Your task to perform on an android device: open app "Truecaller" (install if not already installed) Image 0: 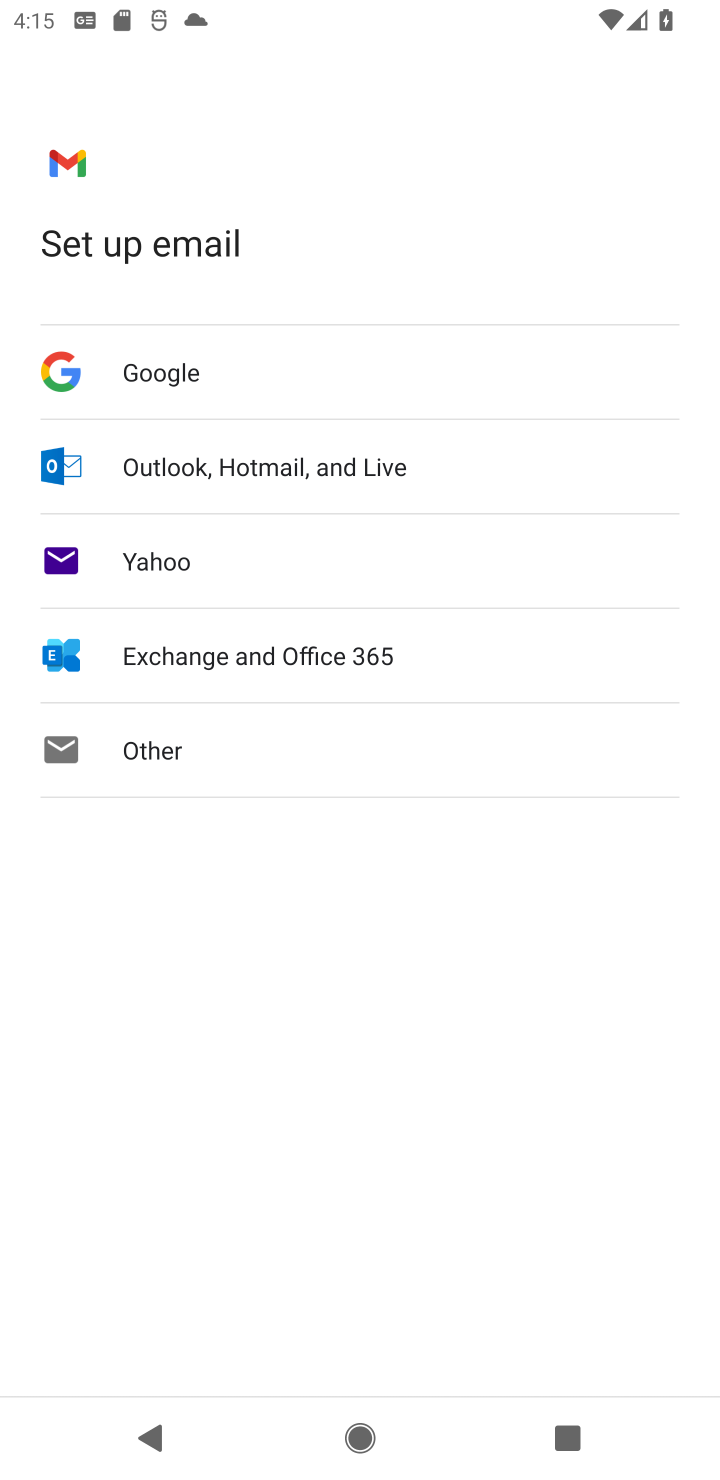
Step 0: press home button
Your task to perform on an android device: open app "Truecaller" (install if not already installed) Image 1: 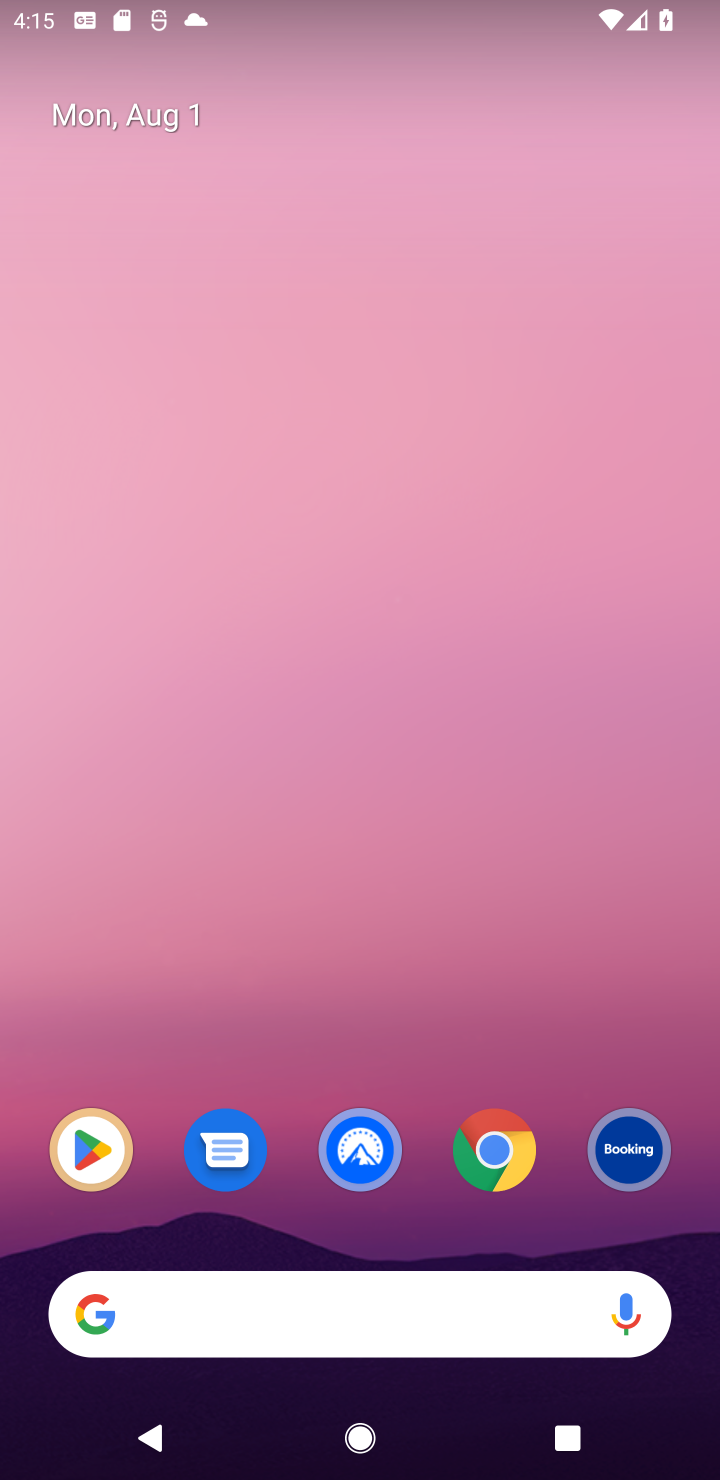
Step 1: drag from (277, 1228) to (336, 383)
Your task to perform on an android device: open app "Truecaller" (install if not already installed) Image 2: 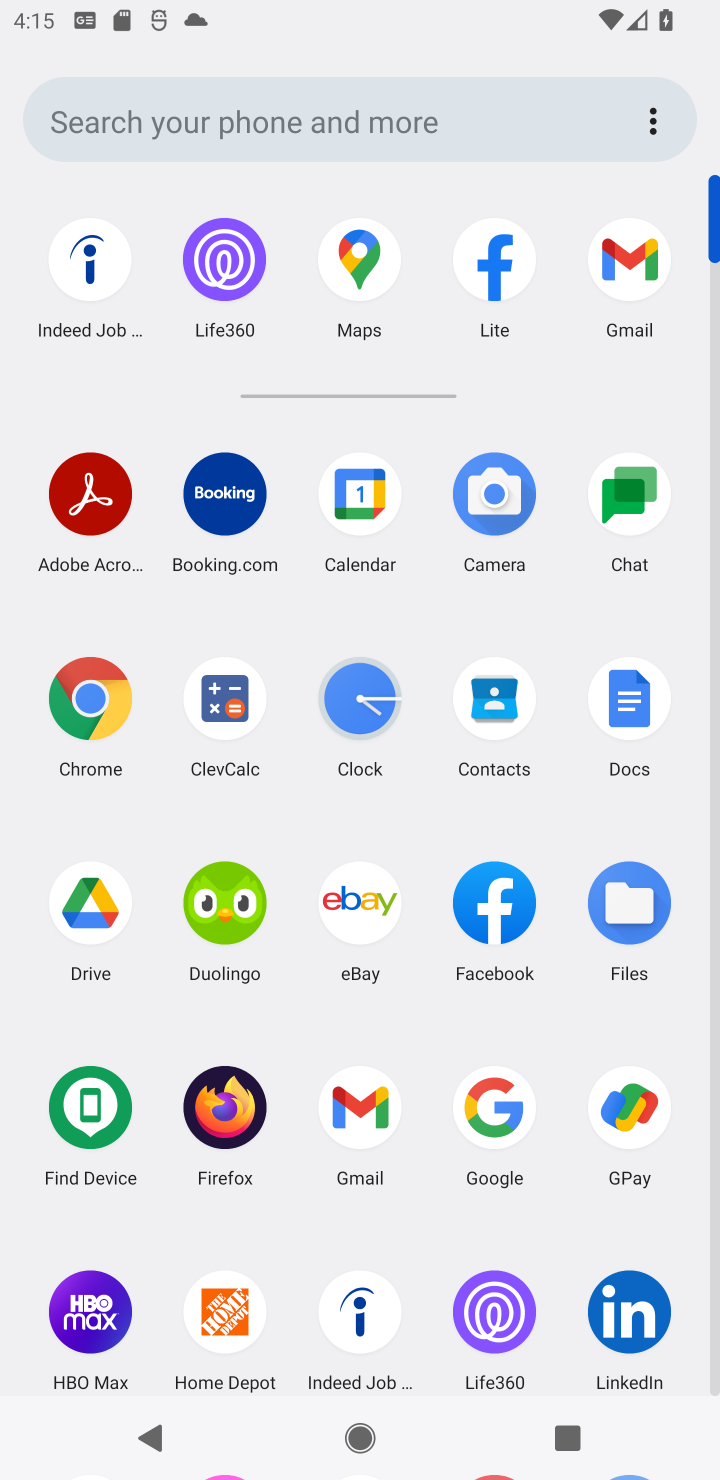
Step 2: click (435, 144)
Your task to perform on an android device: open app "Truecaller" (install if not already installed) Image 3: 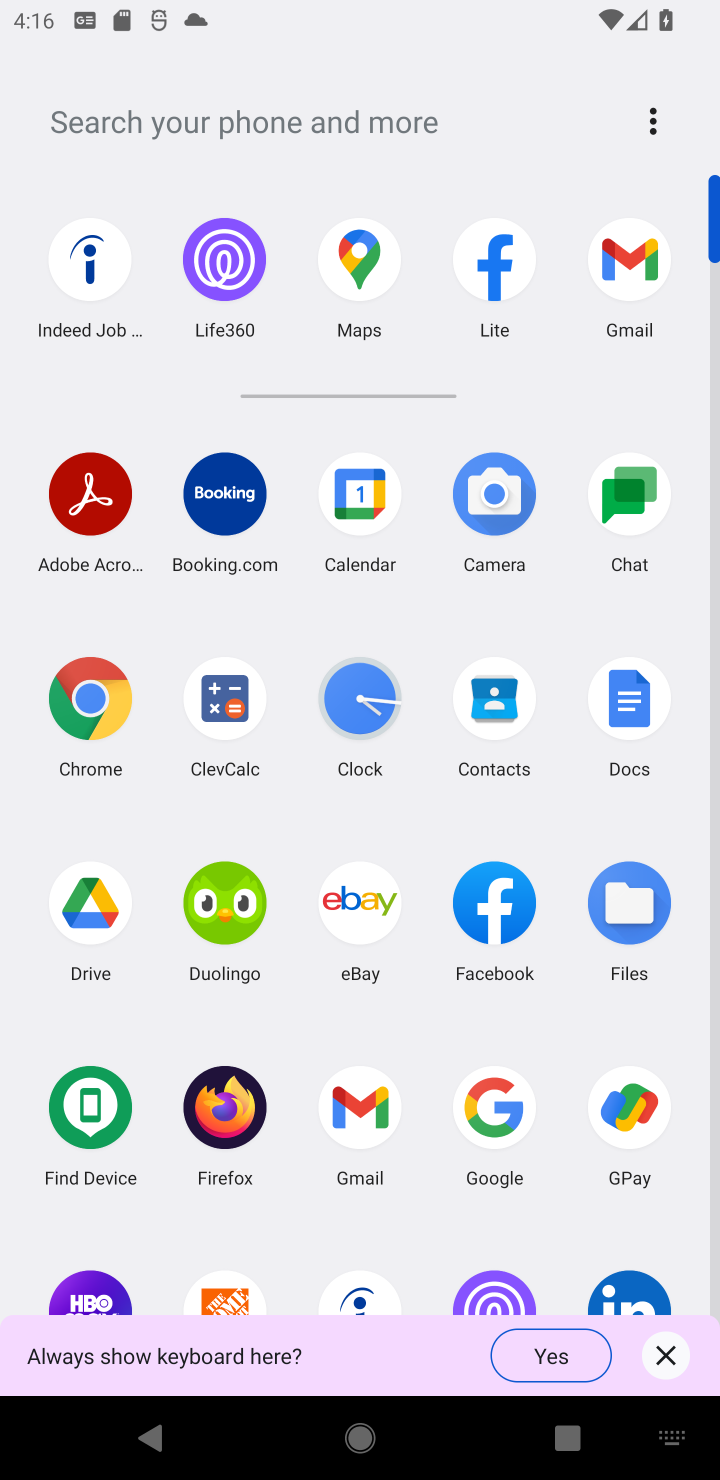
Step 3: type "truecaller"
Your task to perform on an android device: open app "Truecaller" (install if not already installed) Image 4: 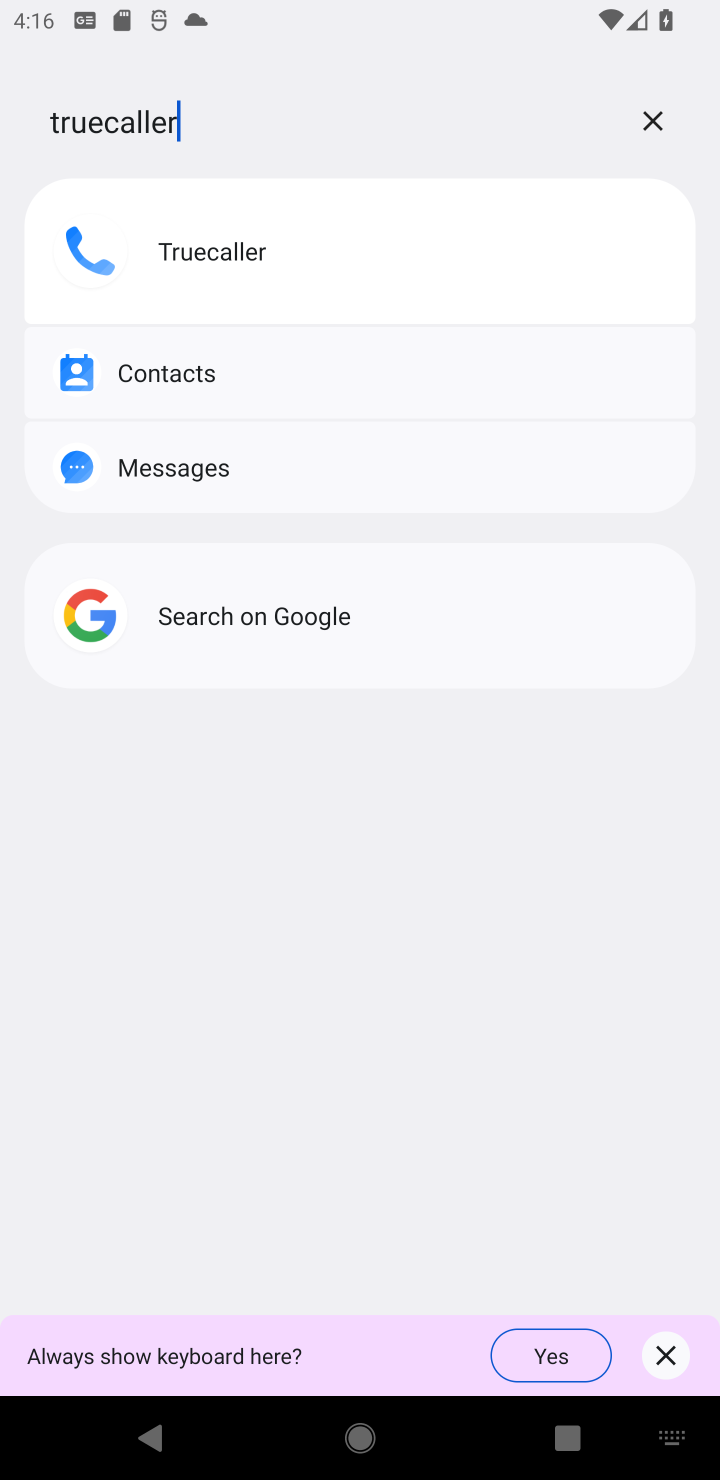
Step 4: click (244, 275)
Your task to perform on an android device: open app "Truecaller" (install if not already installed) Image 5: 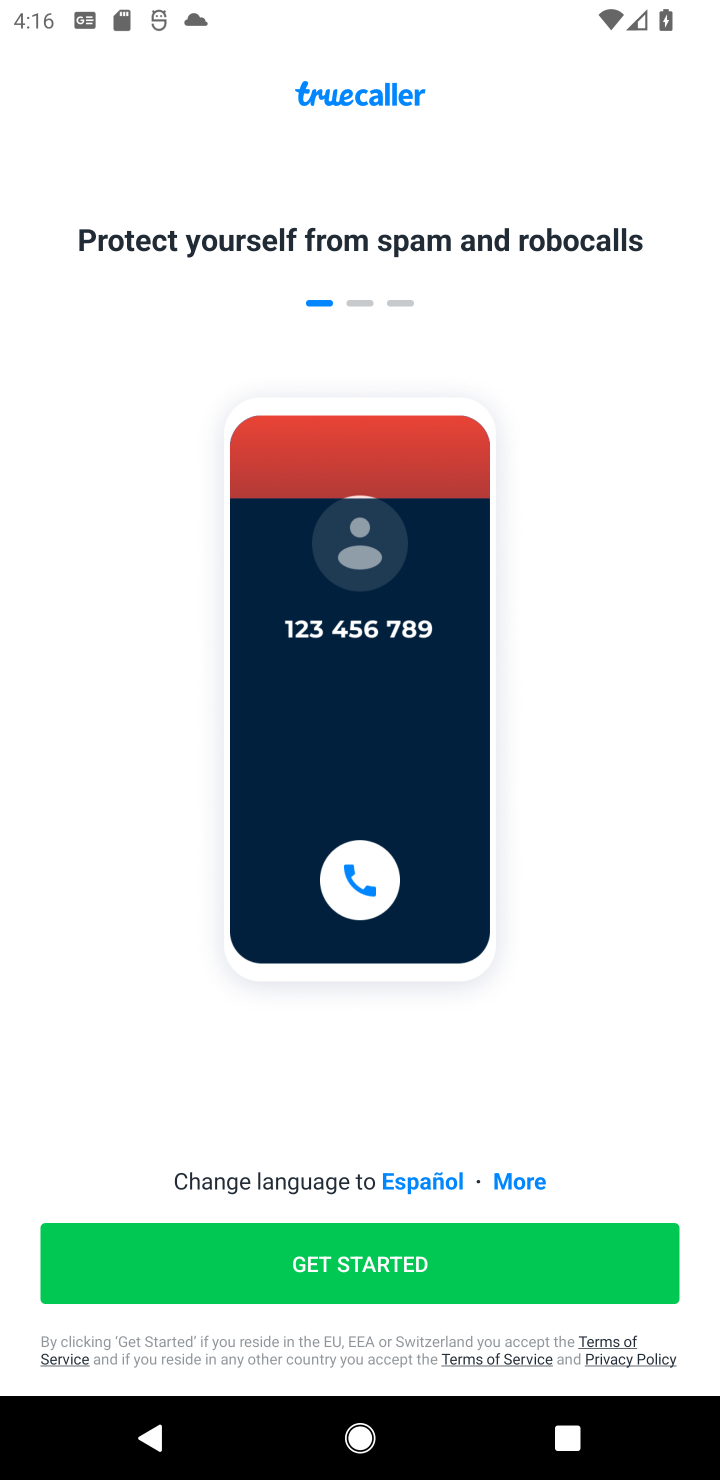
Step 5: task complete